Your task to perform on an android device: What's US dollar exchange rate against the Chinese Yuan? Image 0: 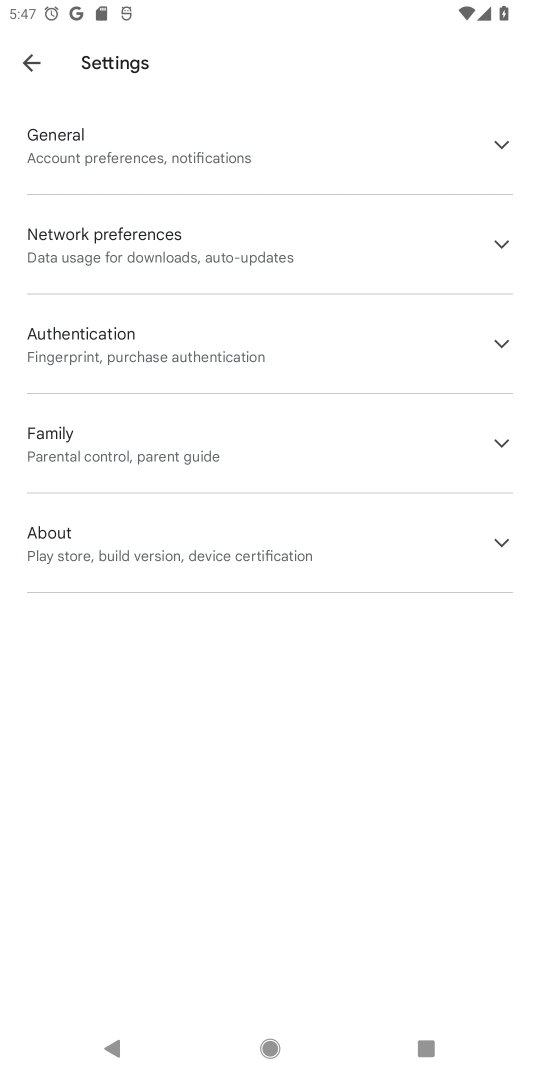
Step 0: press home button
Your task to perform on an android device: What's US dollar exchange rate against the Chinese Yuan? Image 1: 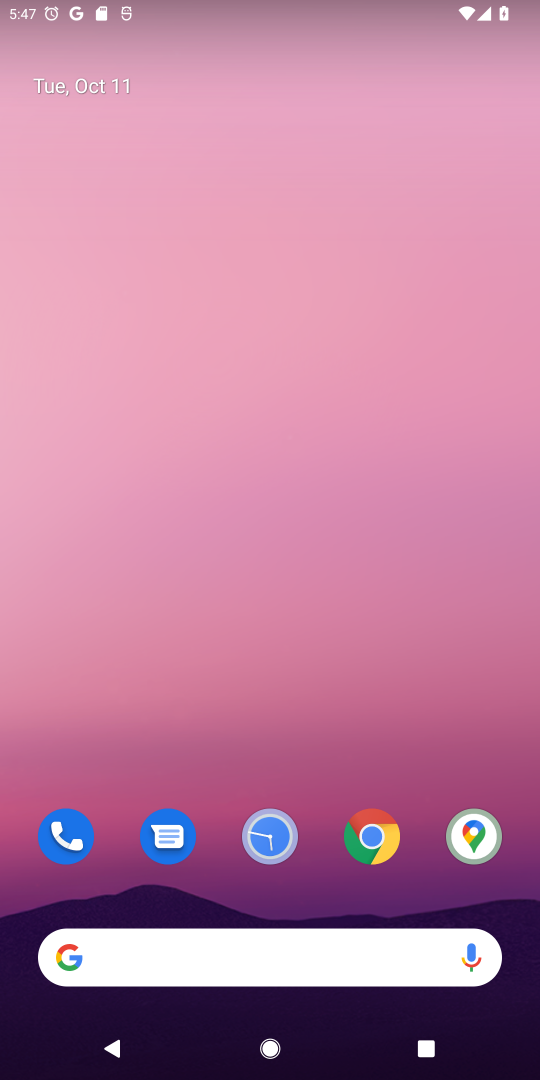
Step 1: click (161, 940)
Your task to perform on an android device: What's US dollar exchange rate against the Chinese Yuan? Image 2: 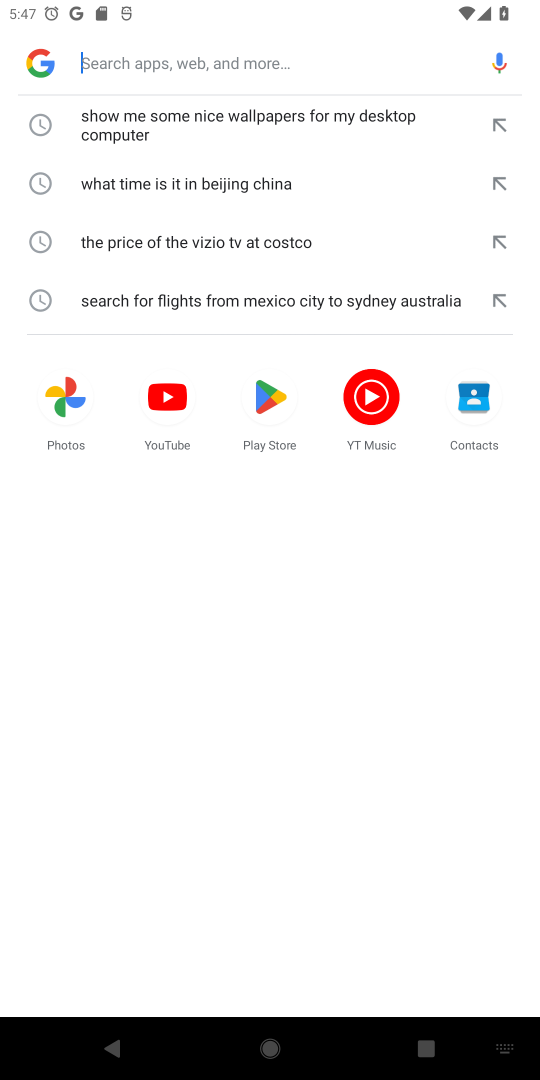
Step 2: type "What's US dollar exchange rate against the Chinese Yuan?"
Your task to perform on an android device: What's US dollar exchange rate against the Chinese Yuan? Image 3: 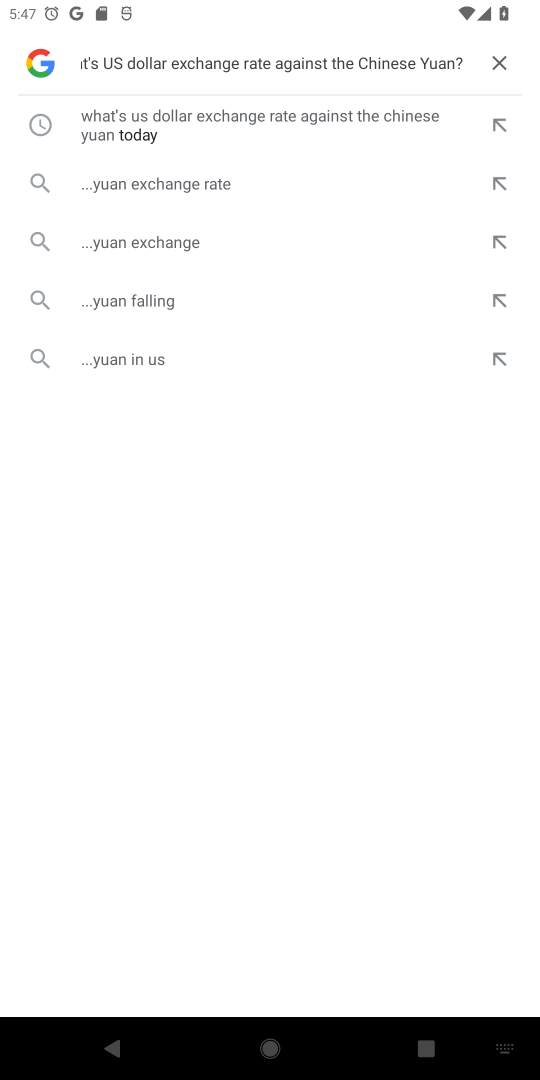
Step 3: click (296, 141)
Your task to perform on an android device: What's US dollar exchange rate against the Chinese Yuan? Image 4: 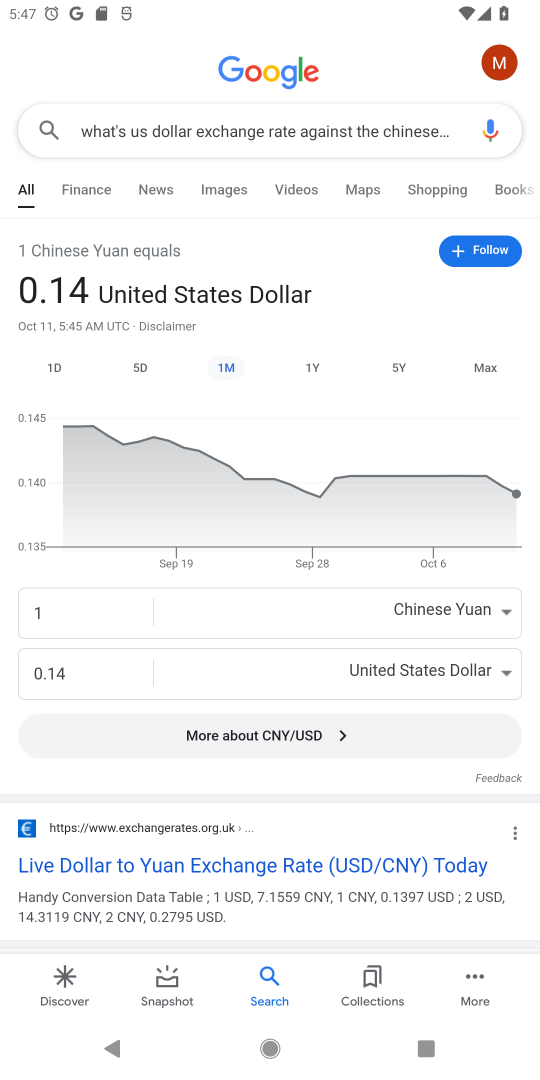
Step 4: task complete